Your task to perform on an android device: Add "razer naga" to the cart on target, then select checkout. Image 0: 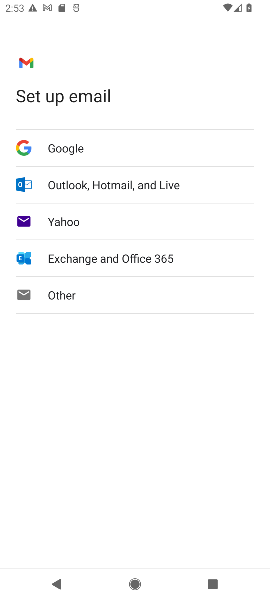
Step 0: press home button
Your task to perform on an android device: Add "razer naga" to the cart on target, then select checkout. Image 1: 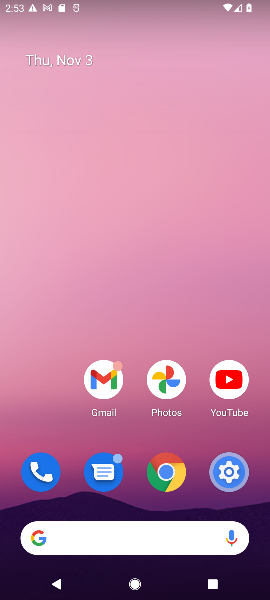
Step 1: click (166, 541)
Your task to perform on an android device: Add "razer naga" to the cart on target, then select checkout. Image 2: 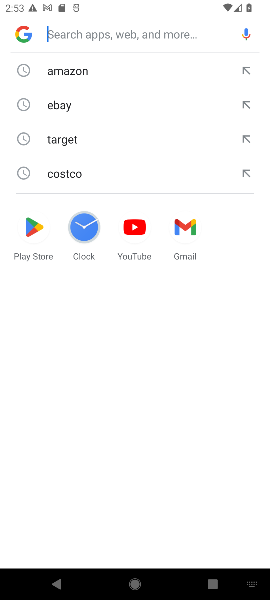
Step 2: type "razer naga"
Your task to perform on an android device: Add "razer naga" to the cart on target, then select checkout. Image 3: 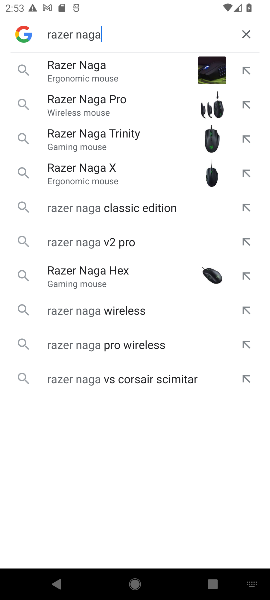
Step 3: click (88, 69)
Your task to perform on an android device: Add "razer naga" to the cart on target, then select checkout. Image 4: 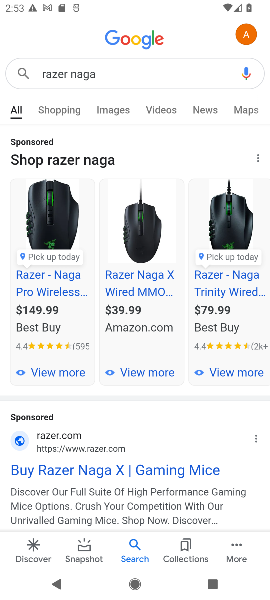
Step 4: click (83, 482)
Your task to perform on an android device: Add "razer naga" to the cart on target, then select checkout. Image 5: 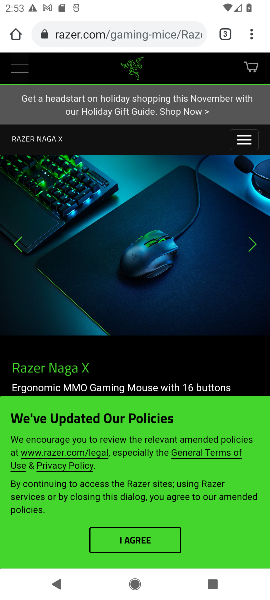
Step 5: click (121, 535)
Your task to perform on an android device: Add "razer naga" to the cart on target, then select checkout. Image 6: 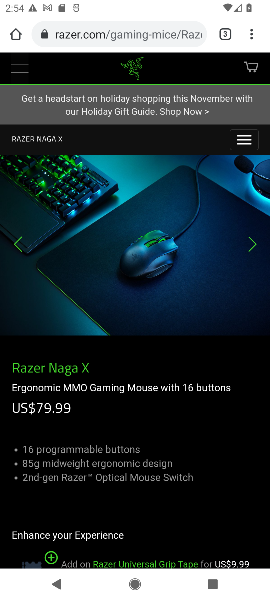
Step 6: task complete